Your task to perform on an android device: Search for "macbook pro" on costco, select the first entry, add it to the cart, then select checkout. Image 0: 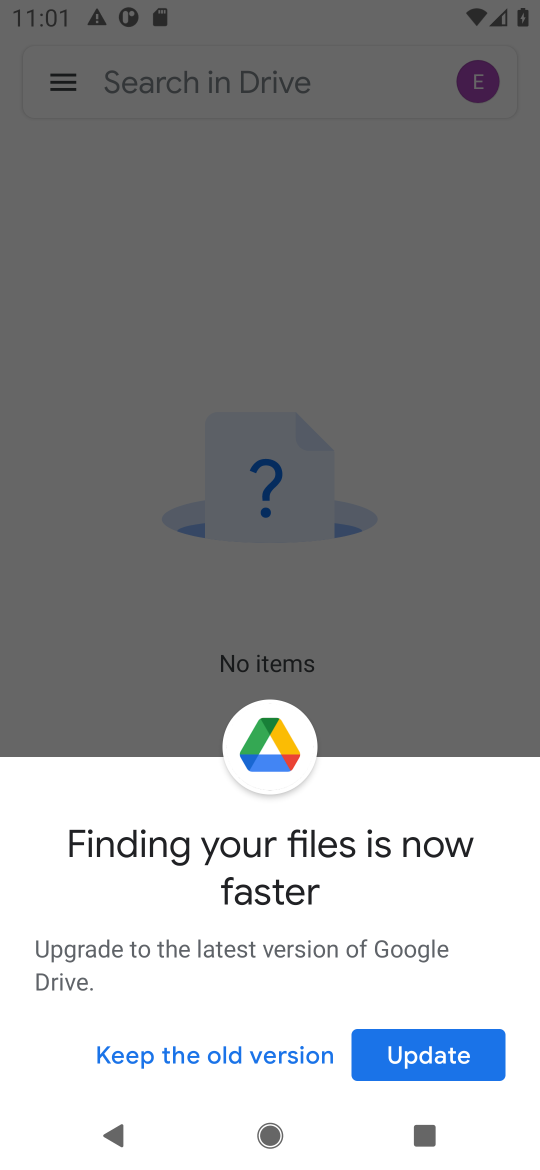
Step 0: press home button
Your task to perform on an android device: Search for "macbook pro" on costco, select the first entry, add it to the cart, then select checkout. Image 1: 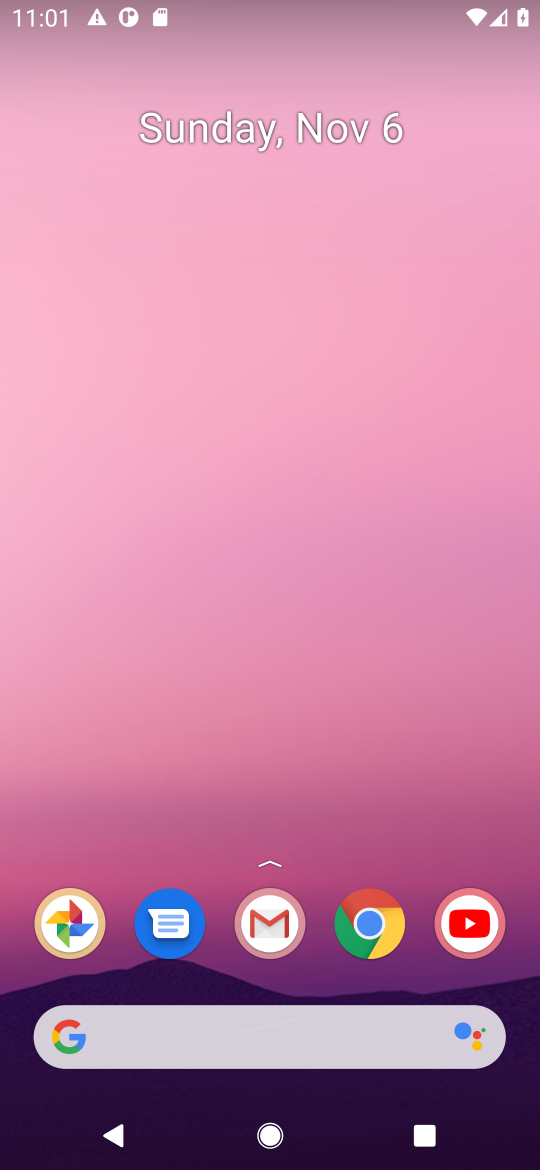
Step 1: click (360, 932)
Your task to perform on an android device: Search for "macbook pro" on costco, select the first entry, add it to the cart, then select checkout. Image 2: 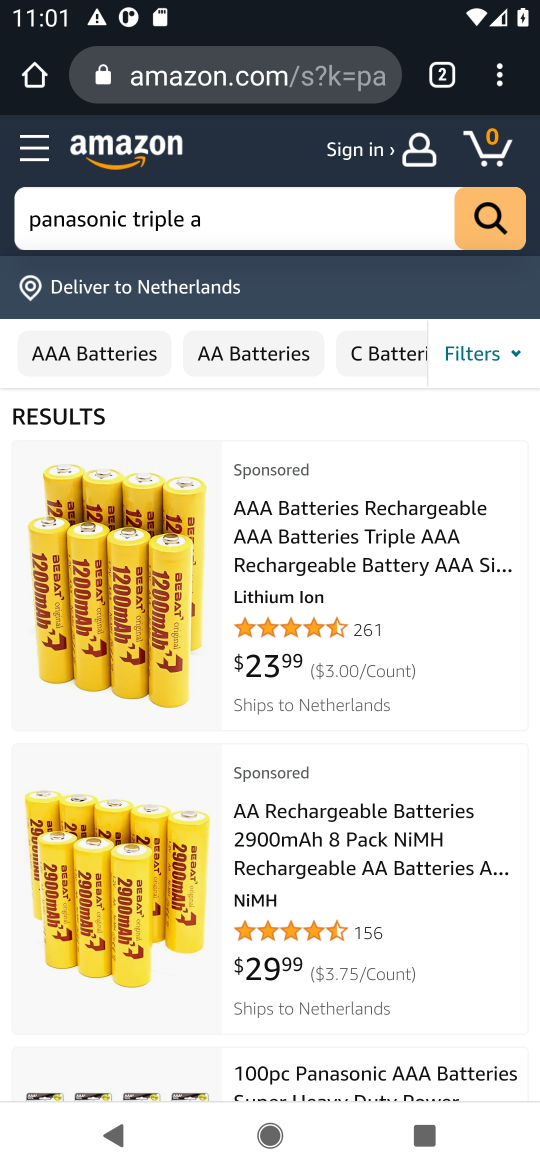
Step 2: click (202, 88)
Your task to perform on an android device: Search for "macbook pro" on costco, select the first entry, add it to the cart, then select checkout. Image 3: 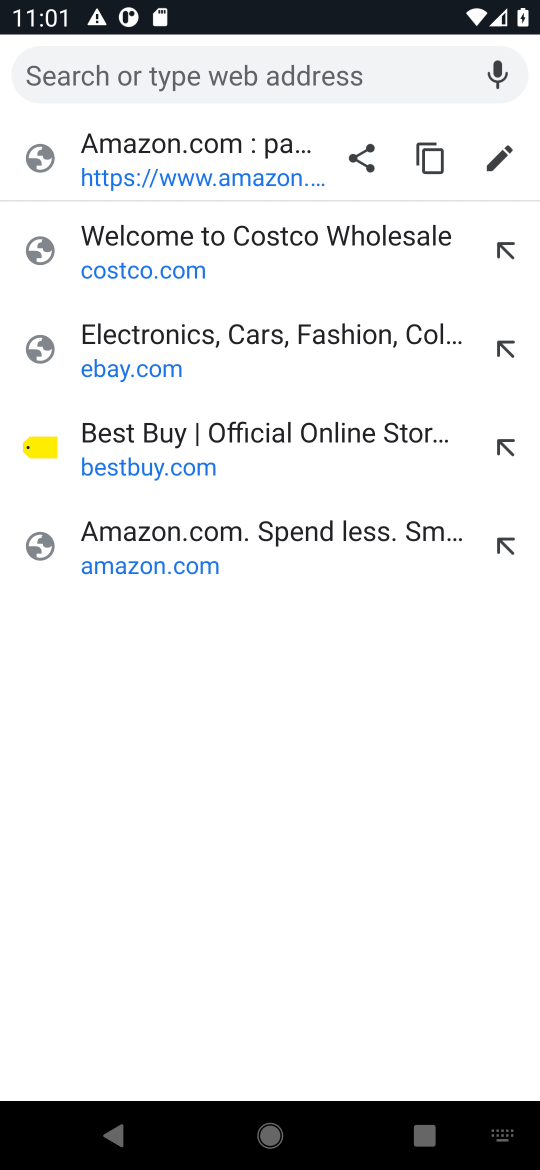
Step 3: click (172, 257)
Your task to perform on an android device: Search for "macbook pro" on costco, select the first entry, add it to the cart, then select checkout. Image 4: 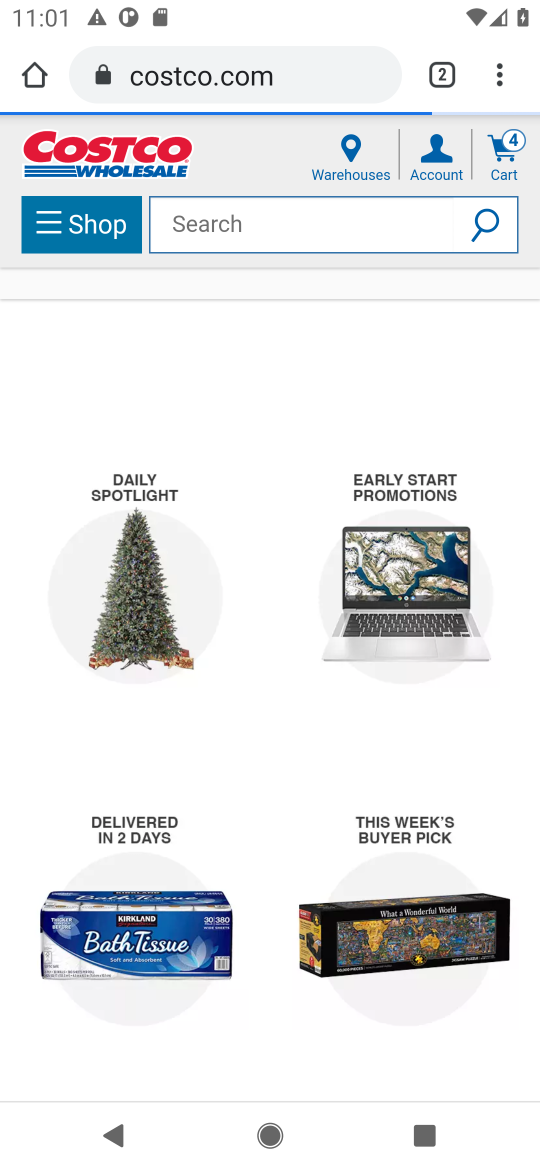
Step 4: click (223, 225)
Your task to perform on an android device: Search for "macbook pro" on costco, select the first entry, add it to the cart, then select checkout. Image 5: 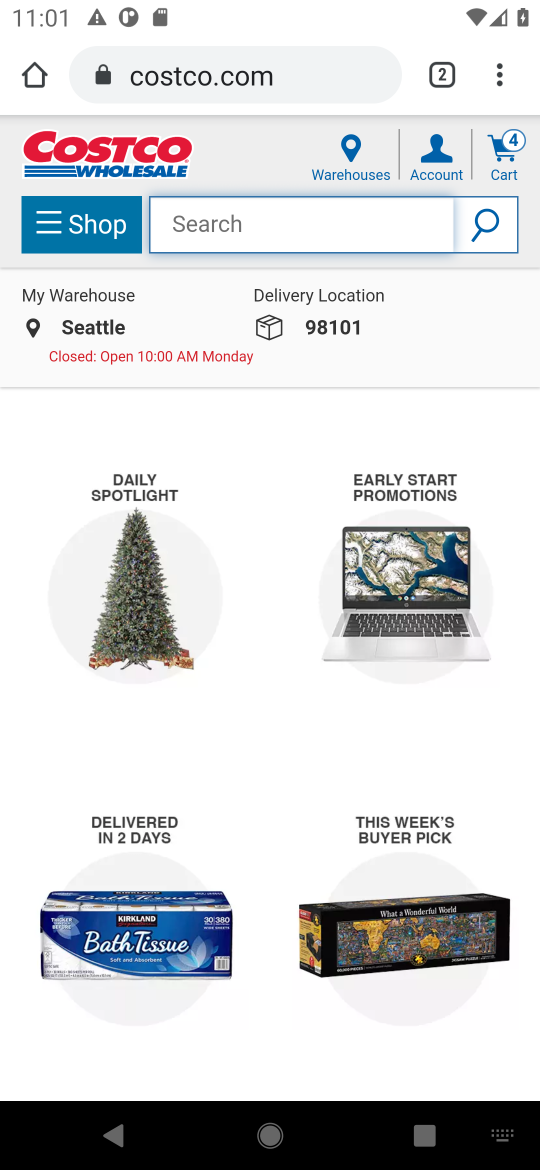
Step 5: type "macbook pro "
Your task to perform on an android device: Search for "macbook pro" on costco, select the first entry, add it to the cart, then select checkout. Image 6: 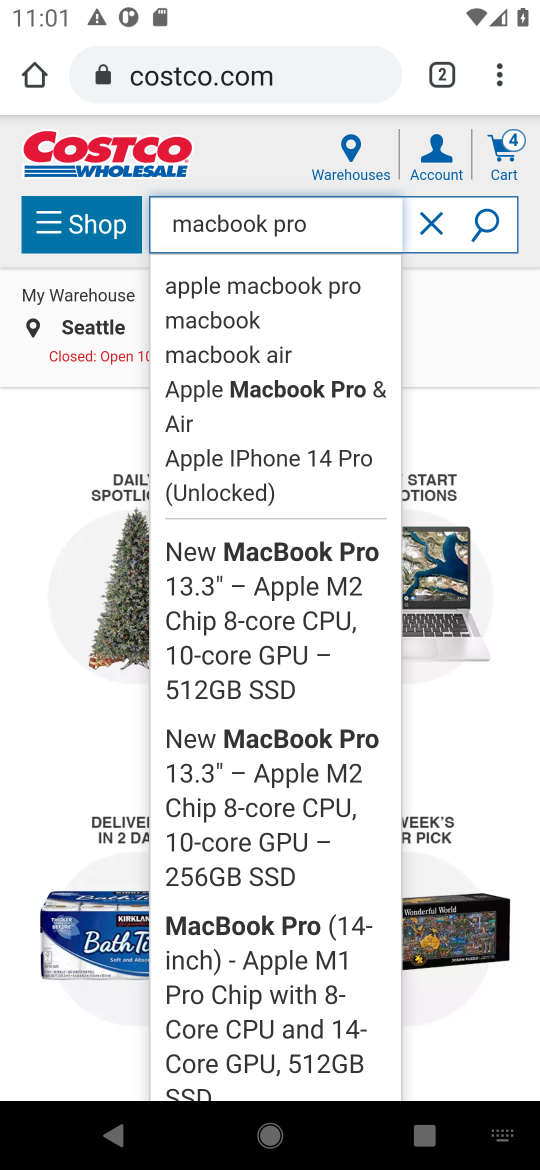
Step 6: click (463, 223)
Your task to perform on an android device: Search for "macbook pro" on costco, select the first entry, add it to the cart, then select checkout. Image 7: 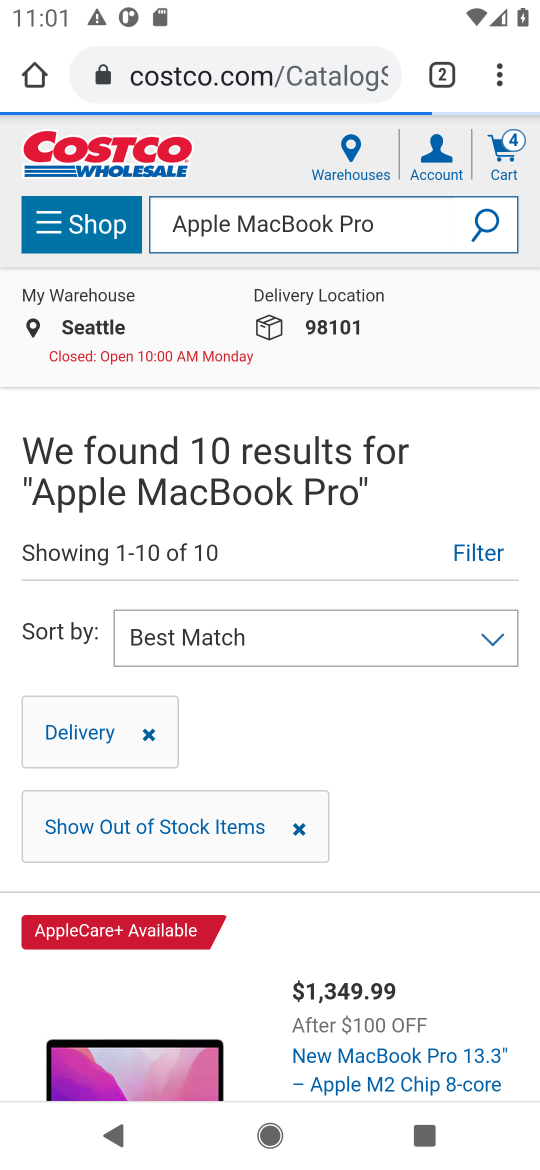
Step 7: drag from (391, 786) to (377, 358)
Your task to perform on an android device: Search for "macbook pro" on costco, select the first entry, add it to the cart, then select checkout. Image 8: 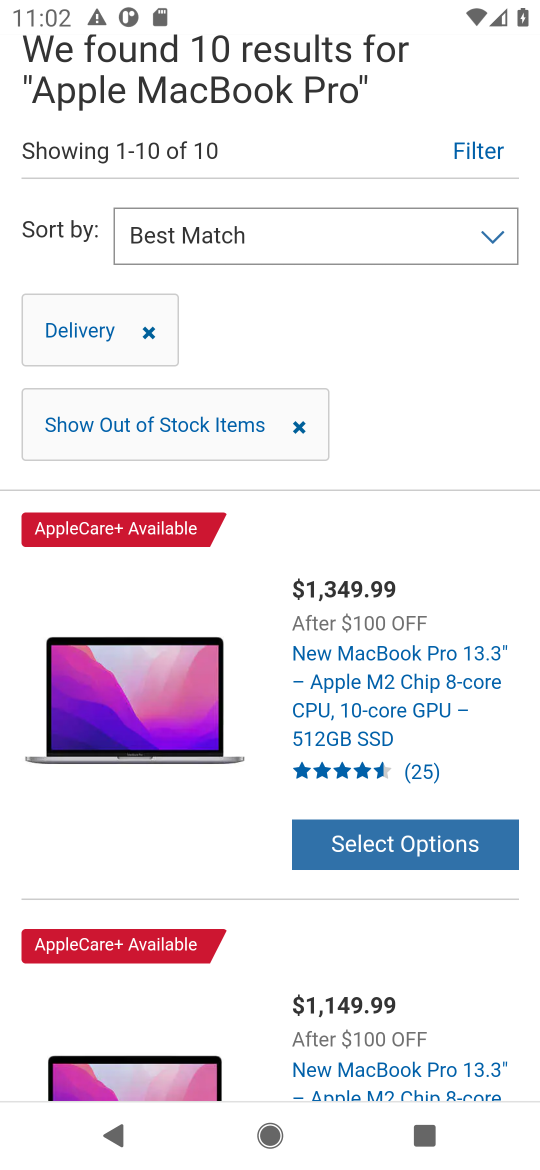
Step 8: click (298, 724)
Your task to perform on an android device: Search for "macbook pro" on costco, select the first entry, add it to the cart, then select checkout. Image 9: 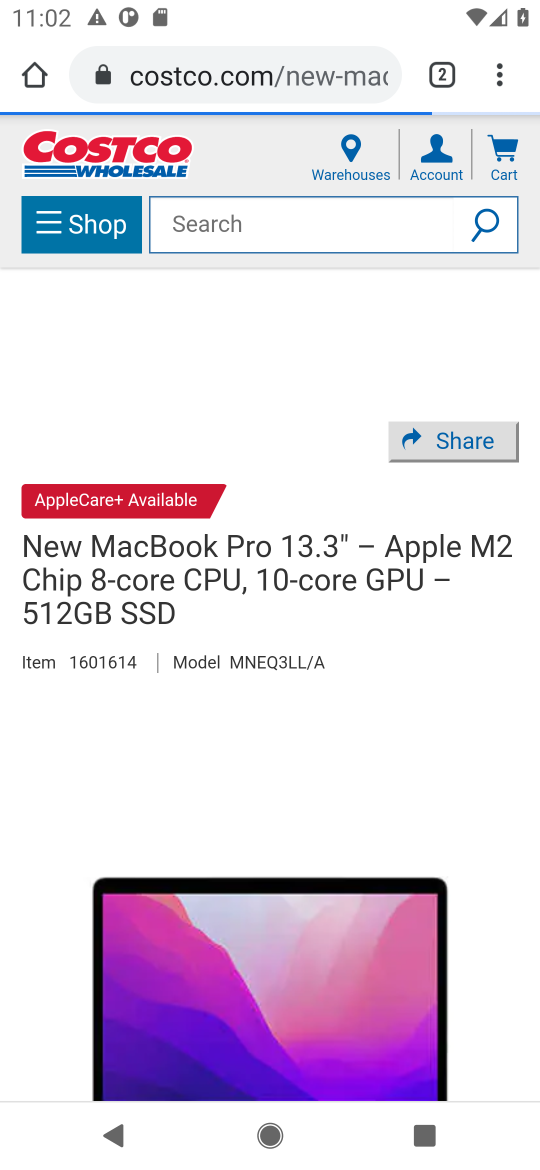
Step 9: drag from (343, 810) to (321, 452)
Your task to perform on an android device: Search for "macbook pro" on costco, select the first entry, add it to the cart, then select checkout. Image 10: 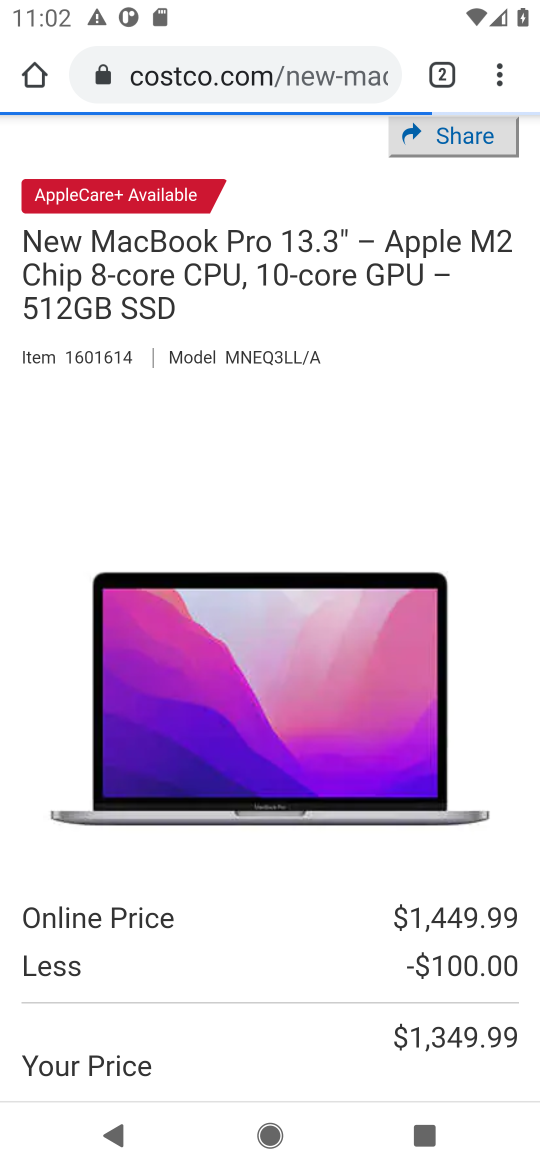
Step 10: drag from (329, 926) to (285, 486)
Your task to perform on an android device: Search for "macbook pro" on costco, select the first entry, add it to the cart, then select checkout. Image 11: 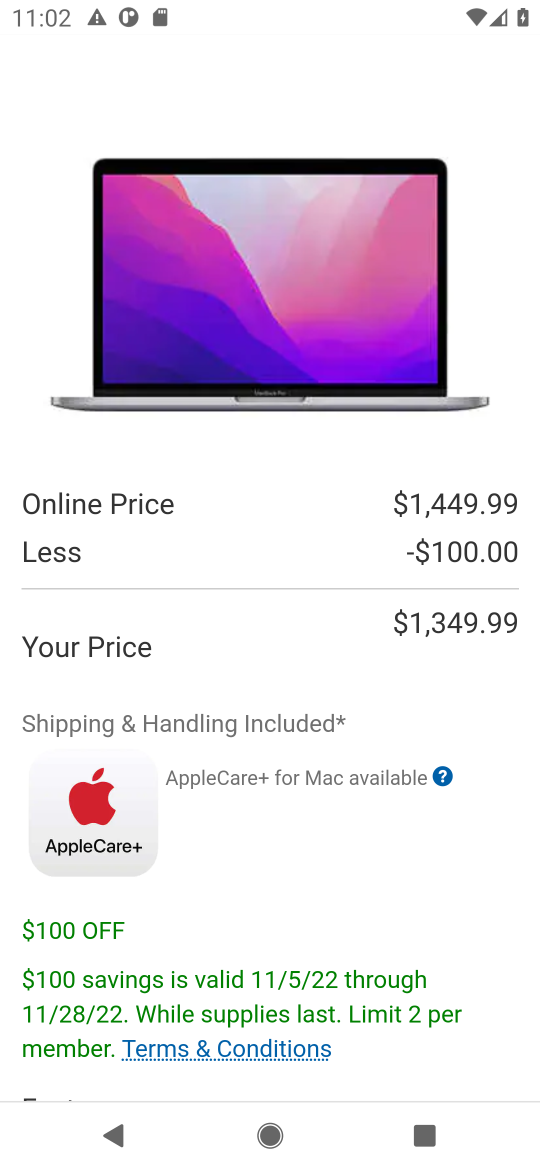
Step 11: drag from (264, 906) to (249, 477)
Your task to perform on an android device: Search for "macbook pro" on costco, select the first entry, add it to the cart, then select checkout. Image 12: 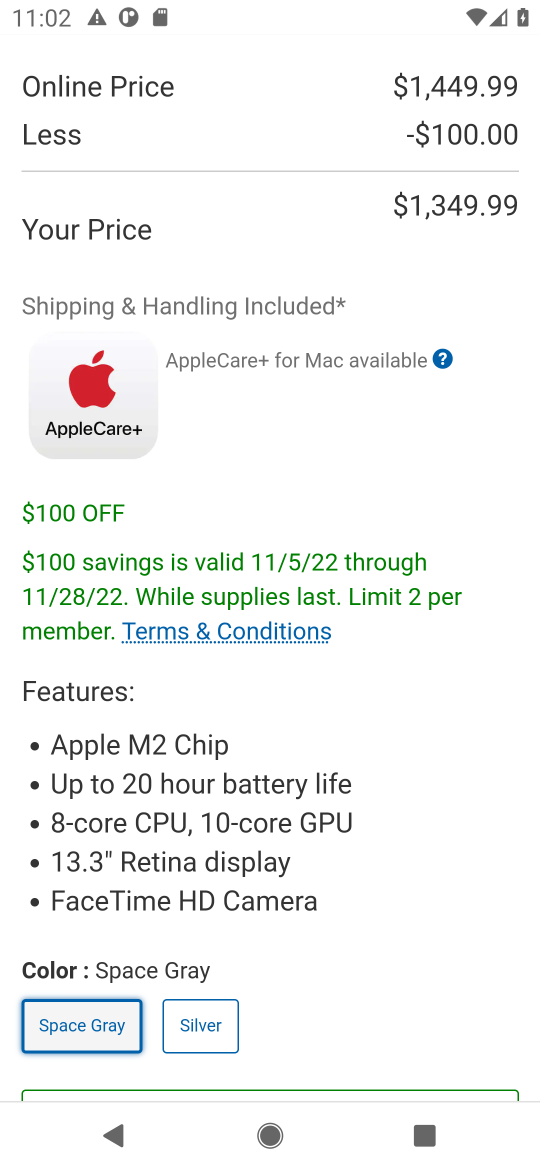
Step 12: drag from (339, 910) to (277, 547)
Your task to perform on an android device: Search for "macbook pro" on costco, select the first entry, add it to the cart, then select checkout. Image 13: 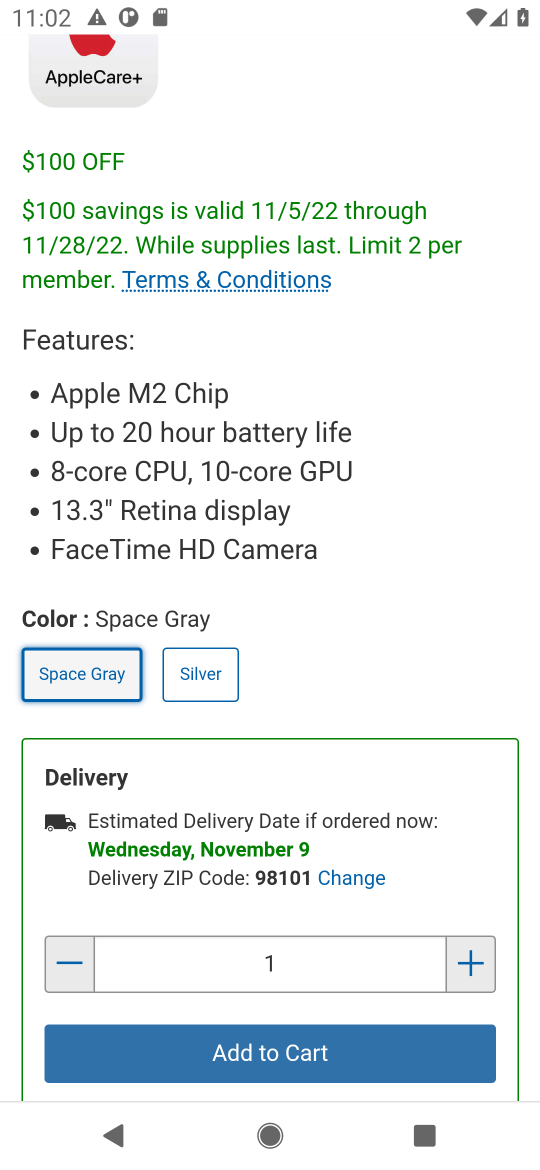
Step 13: drag from (528, 642) to (528, 474)
Your task to perform on an android device: Search for "macbook pro" on costco, select the first entry, add it to the cart, then select checkout. Image 14: 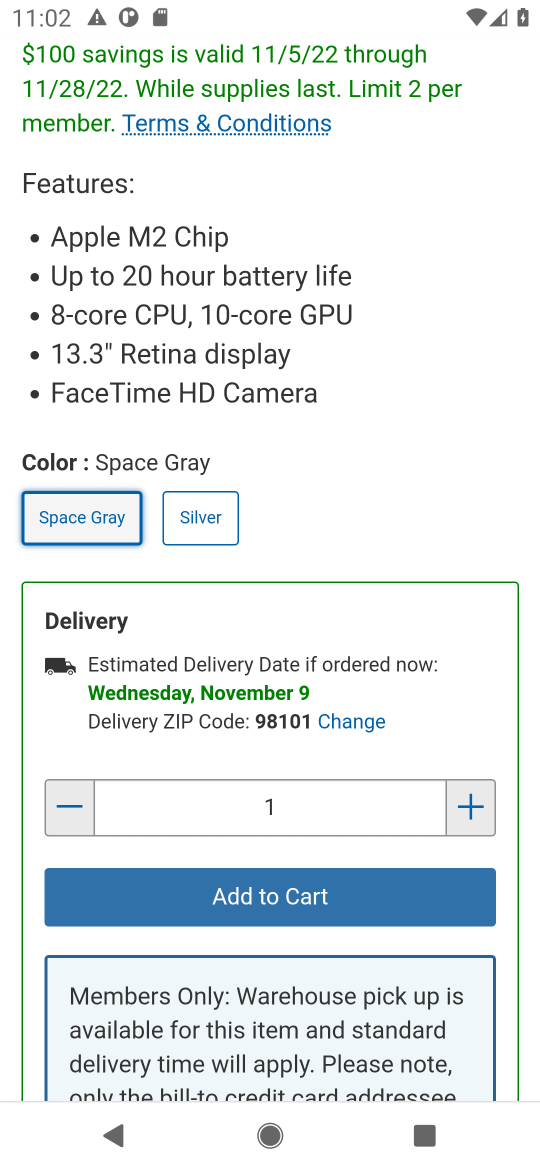
Step 14: click (301, 903)
Your task to perform on an android device: Search for "macbook pro" on costco, select the first entry, add it to the cart, then select checkout. Image 15: 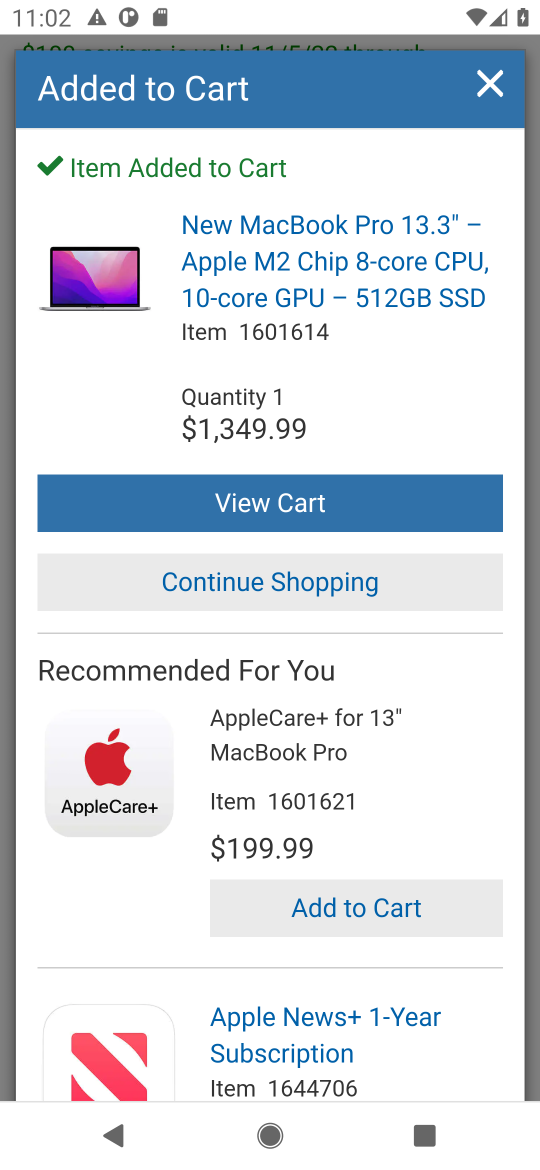
Step 15: click (257, 507)
Your task to perform on an android device: Search for "macbook pro" on costco, select the first entry, add it to the cart, then select checkout. Image 16: 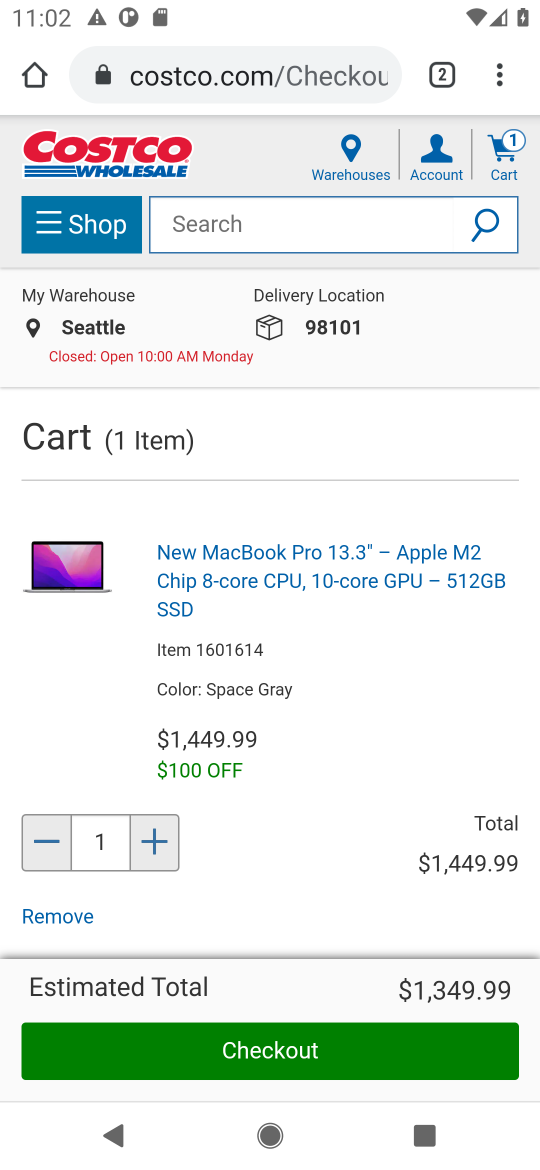
Step 16: click (242, 1045)
Your task to perform on an android device: Search for "macbook pro" on costco, select the first entry, add it to the cart, then select checkout. Image 17: 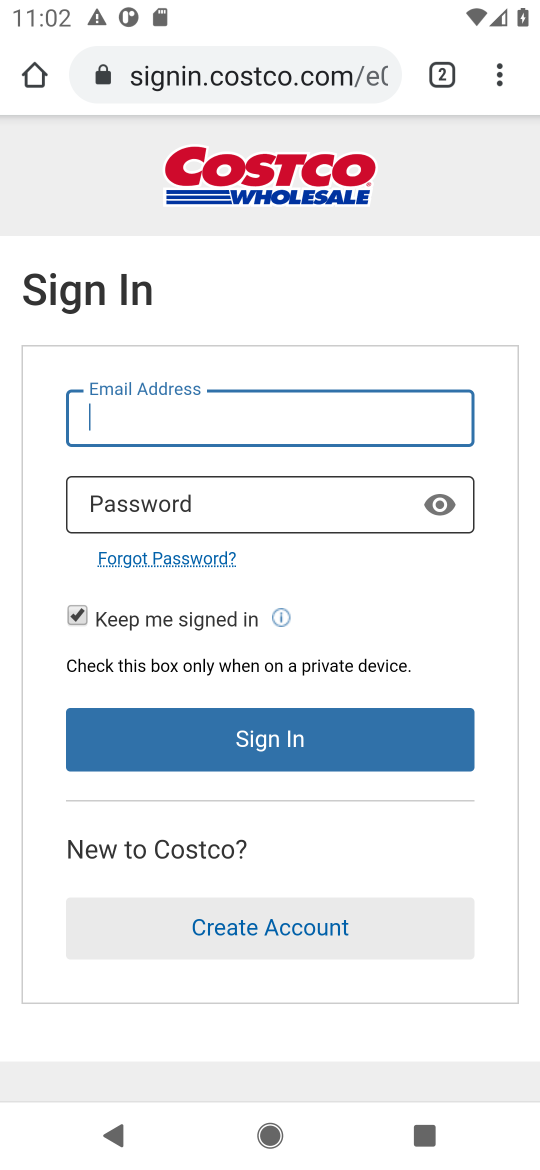
Step 17: task complete